Your task to perform on an android device: Open the map Image 0: 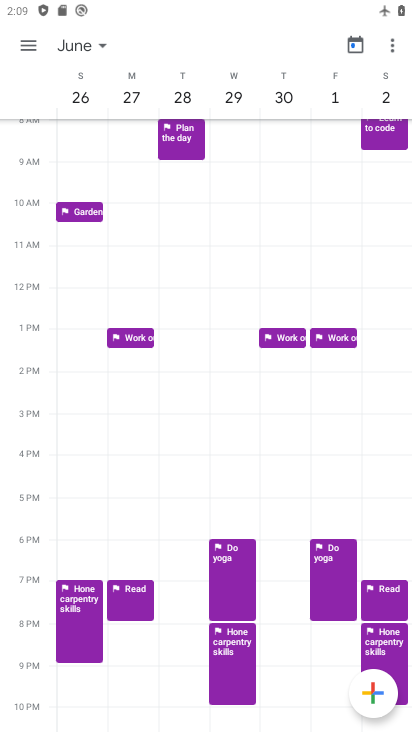
Step 0: press home button
Your task to perform on an android device: Open the map Image 1: 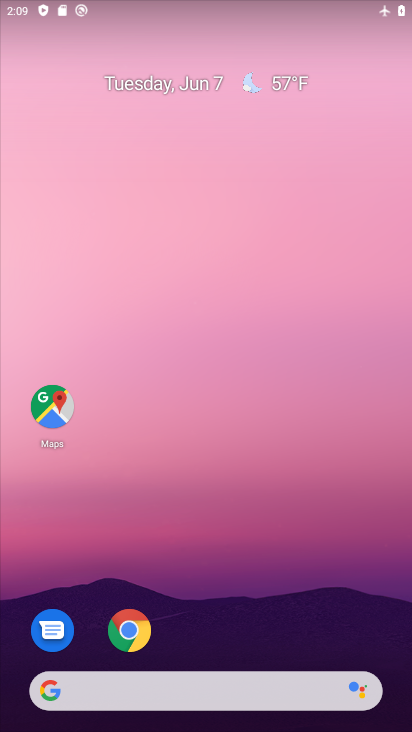
Step 1: click (55, 416)
Your task to perform on an android device: Open the map Image 2: 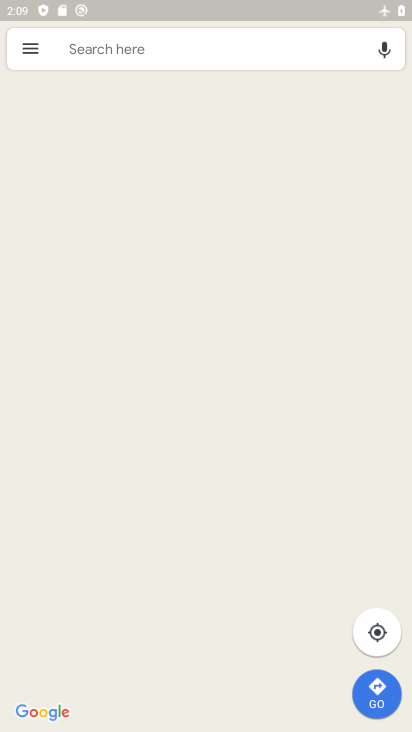
Step 2: task complete